Your task to perform on an android device: Go to Google Image 0: 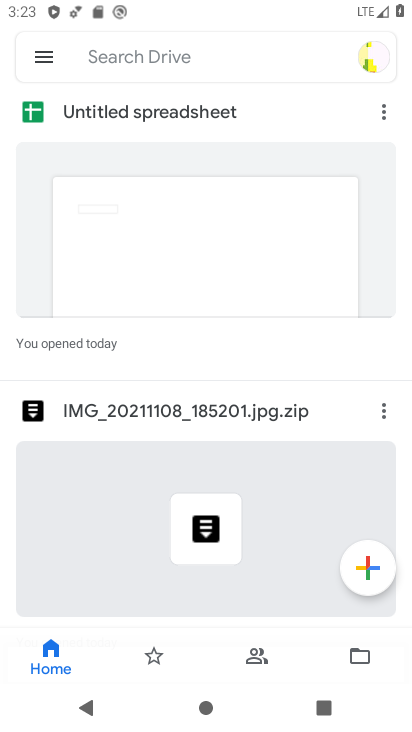
Step 0: press back button
Your task to perform on an android device: Go to Google Image 1: 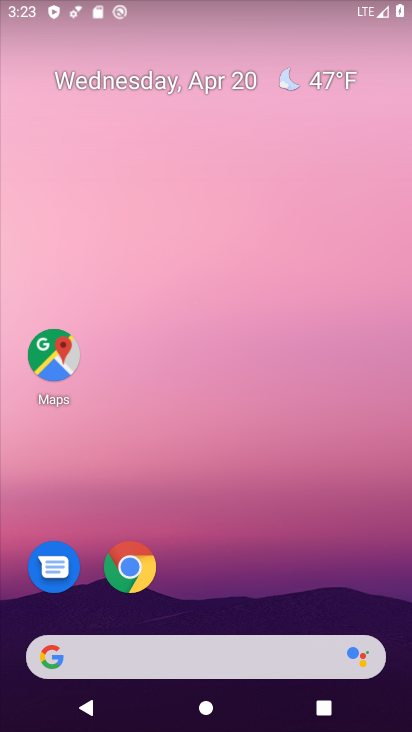
Step 1: drag from (257, 488) to (235, 89)
Your task to perform on an android device: Go to Google Image 2: 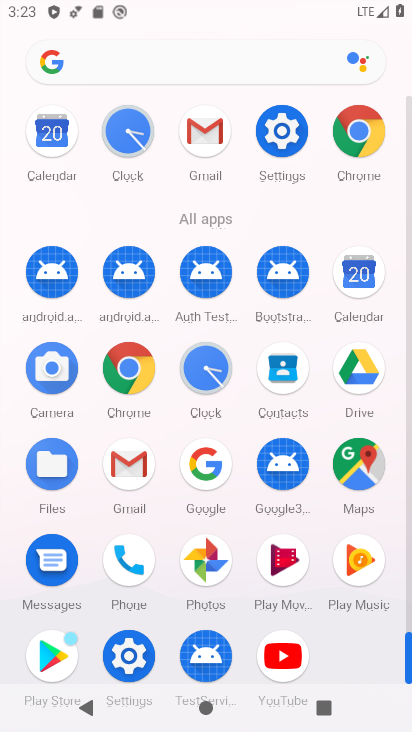
Step 2: click (126, 367)
Your task to perform on an android device: Go to Google Image 3: 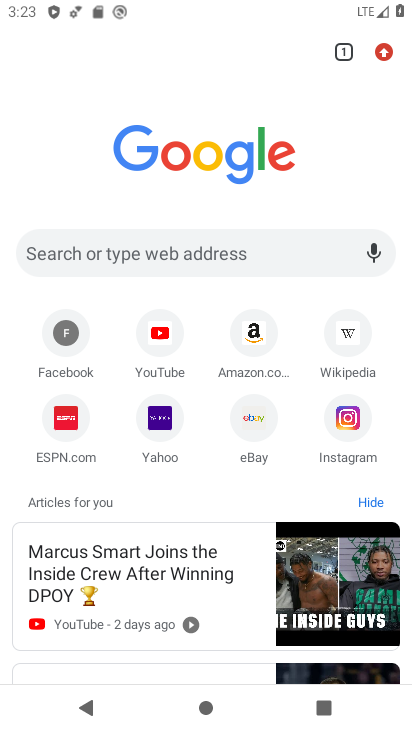
Step 3: click (151, 249)
Your task to perform on an android device: Go to Google Image 4: 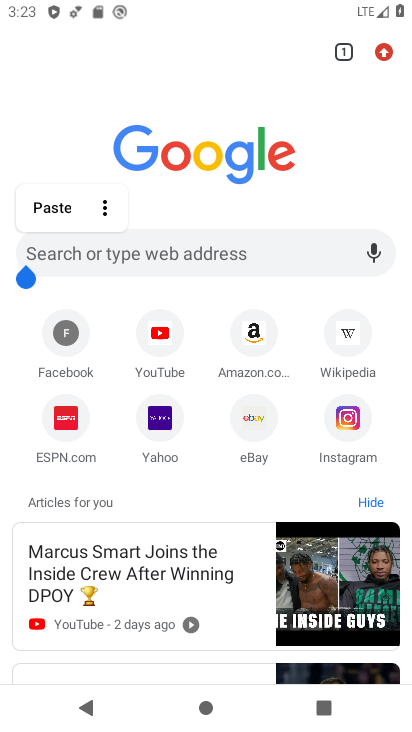
Step 4: click (273, 255)
Your task to perform on an android device: Go to Google Image 5: 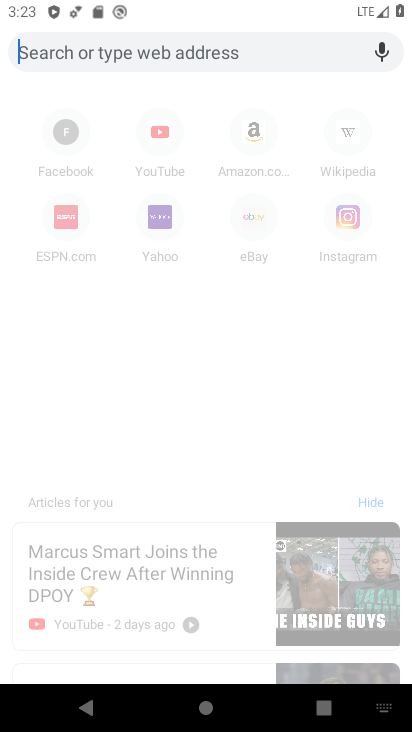
Step 5: type "Google"
Your task to perform on an android device: Go to Google Image 6: 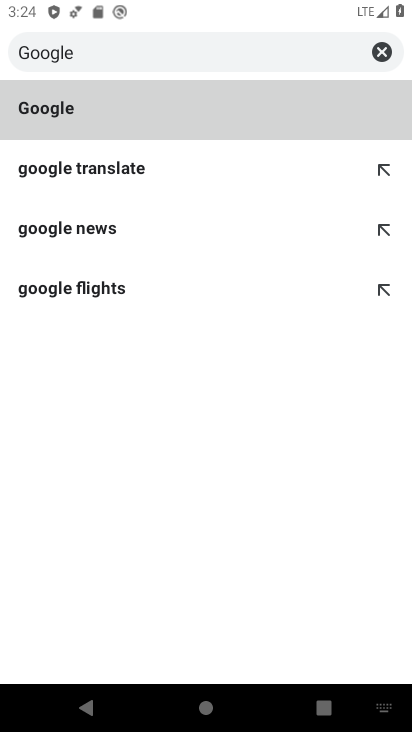
Step 6: click (90, 120)
Your task to perform on an android device: Go to Google Image 7: 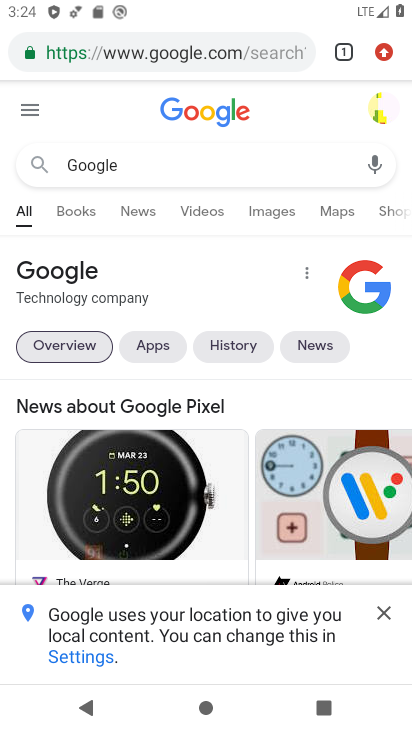
Step 7: drag from (223, 428) to (208, 180)
Your task to perform on an android device: Go to Google Image 8: 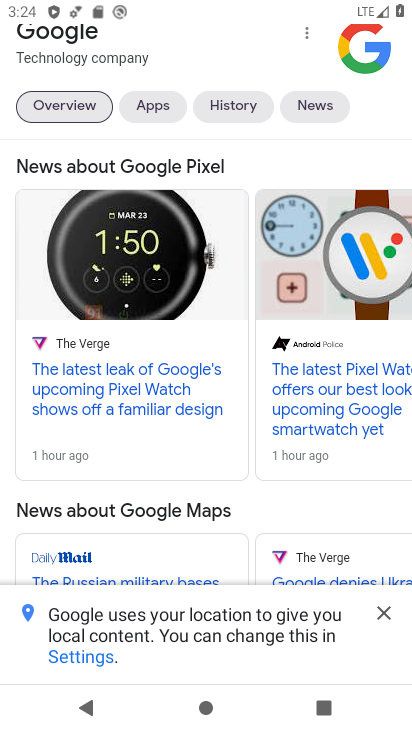
Step 8: drag from (214, 503) to (218, 164)
Your task to perform on an android device: Go to Google Image 9: 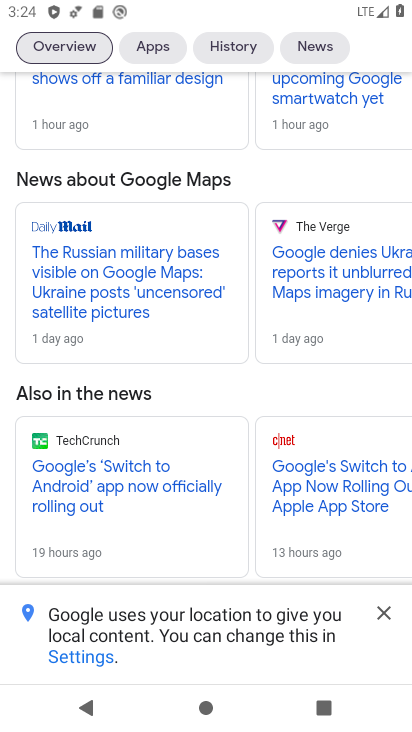
Step 9: drag from (181, 484) to (180, 192)
Your task to perform on an android device: Go to Google Image 10: 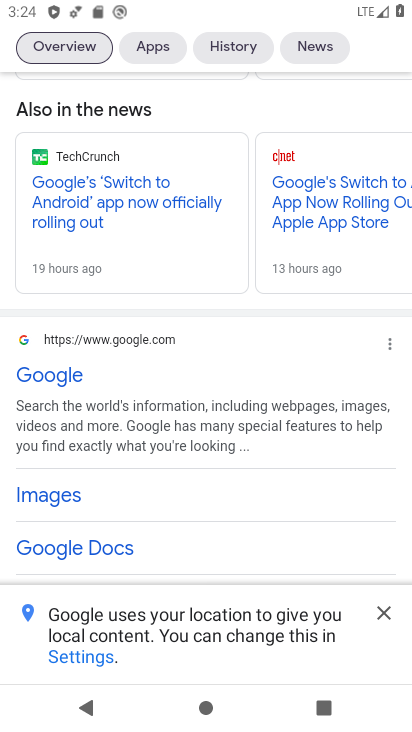
Step 10: click (68, 372)
Your task to perform on an android device: Go to Google Image 11: 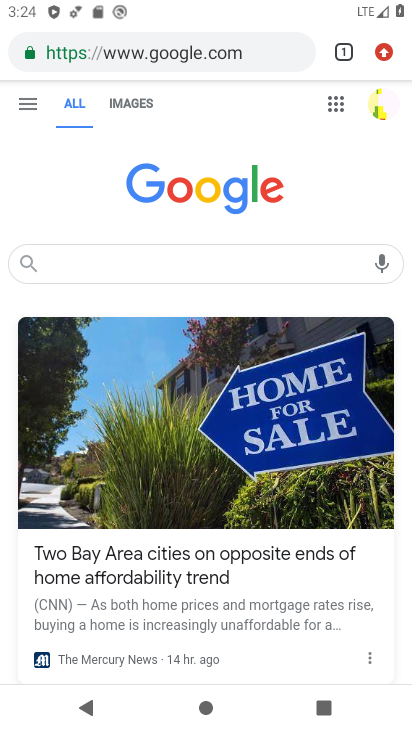
Step 11: task complete